Your task to perform on an android device: open app "Speedtest by Ookla" (install if not already installed) Image 0: 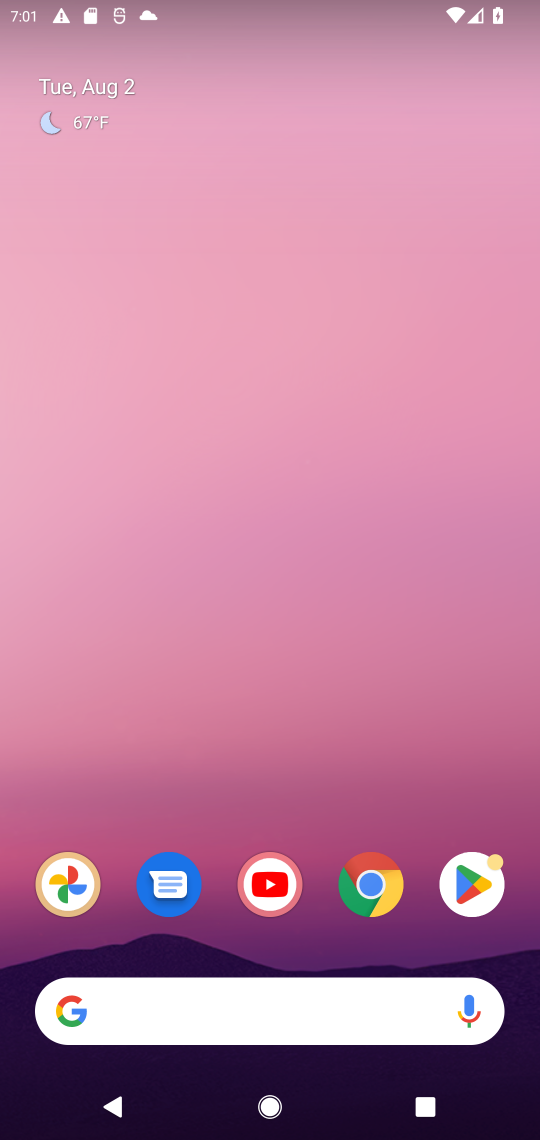
Step 0: press home button
Your task to perform on an android device: open app "Speedtest by Ookla" (install if not already installed) Image 1: 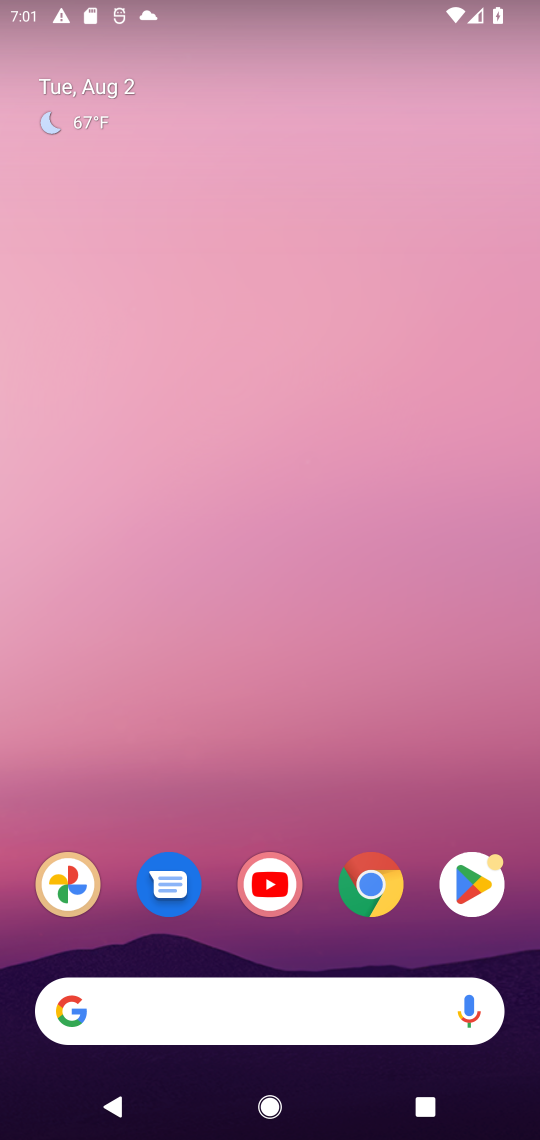
Step 1: click (475, 879)
Your task to perform on an android device: open app "Speedtest by Ookla" (install if not already installed) Image 2: 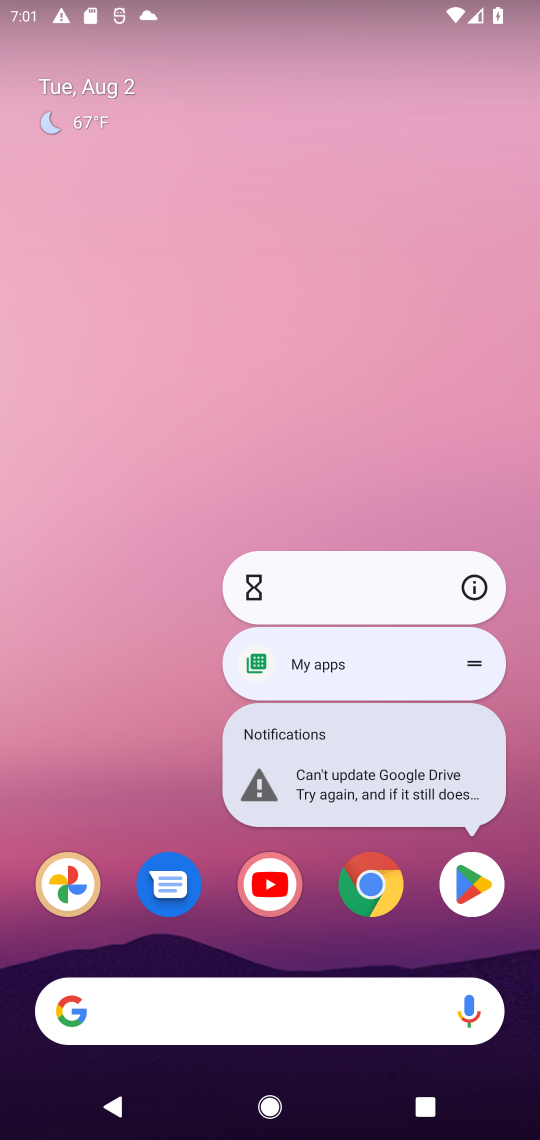
Step 2: click (470, 872)
Your task to perform on an android device: open app "Speedtest by Ookla" (install if not already installed) Image 3: 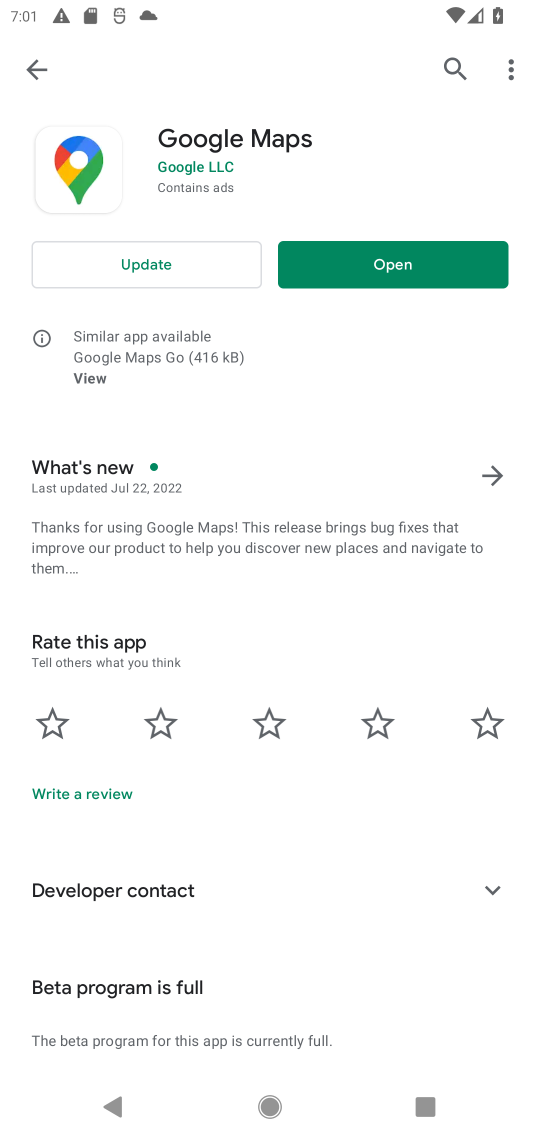
Step 3: click (435, 76)
Your task to perform on an android device: open app "Speedtest by Ookla" (install if not already installed) Image 4: 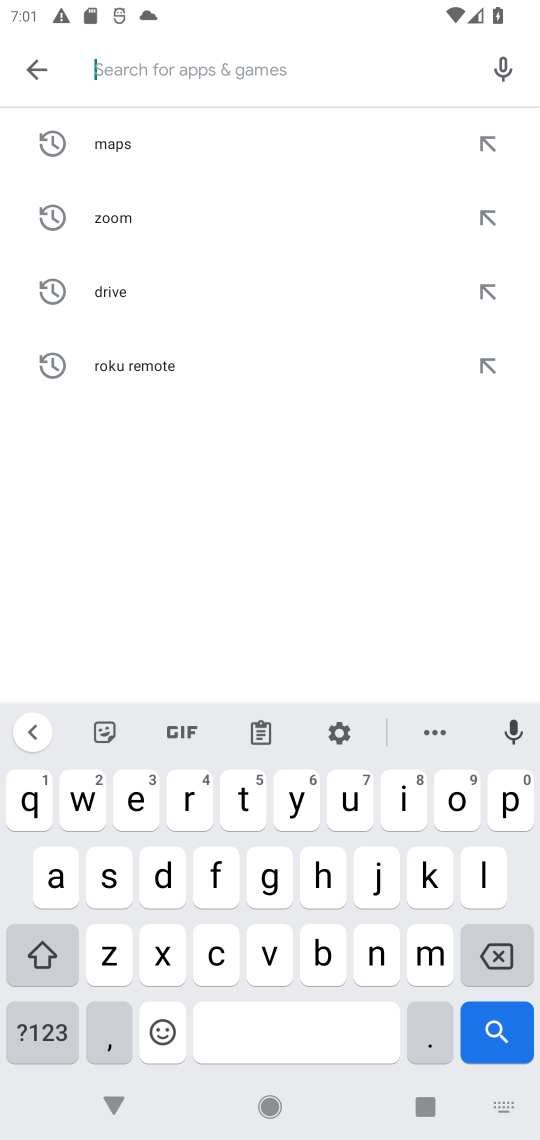
Step 4: click (98, 876)
Your task to perform on an android device: open app "Speedtest by Ookla" (install if not already installed) Image 5: 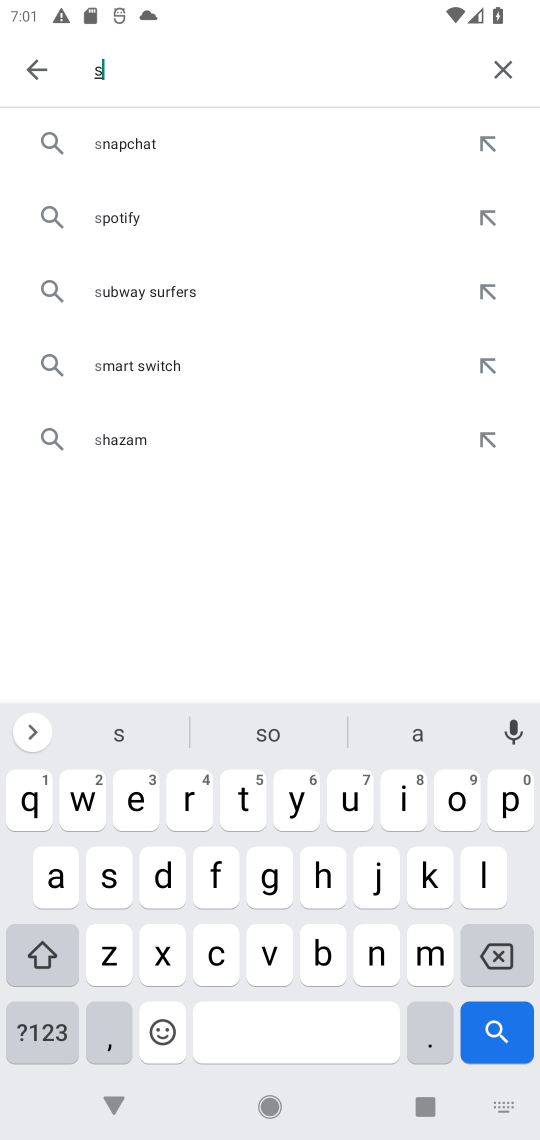
Step 5: click (507, 804)
Your task to perform on an android device: open app "Speedtest by Ookla" (install if not already installed) Image 6: 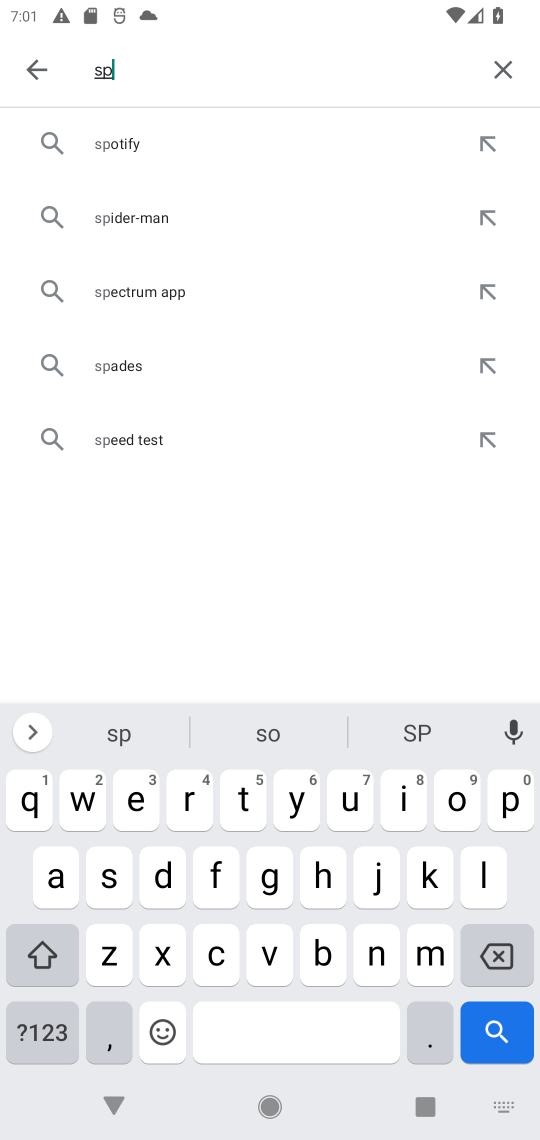
Step 6: click (138, 809)
Your task to perform on an android device: open app "Speedtest by Ookla" (install if not already installed) Image 7: 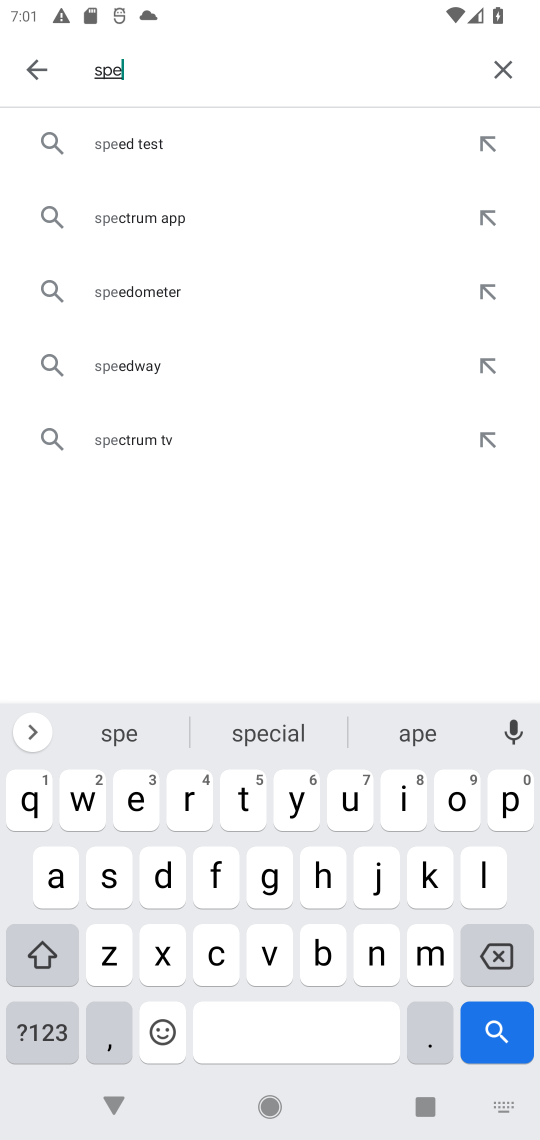
Step 7: click (138, 809)
Your task to perform on an android device: open app "Speedtest by Ookla" (install if not already installed) Image 8: 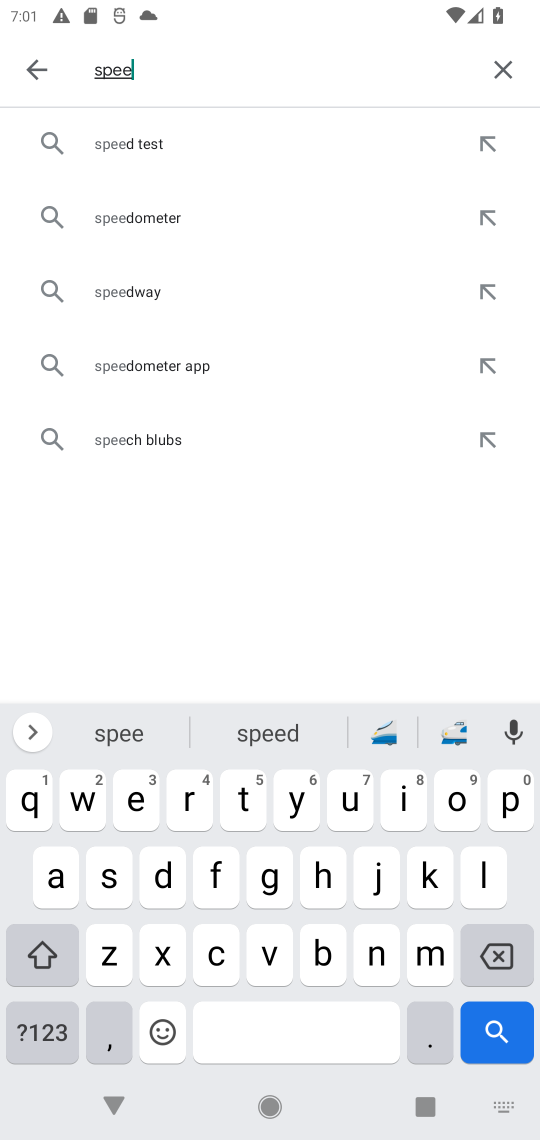
Step 8: click (177, 143)
Your task to perform on an android device: open app "Speedtest by Ookla" (install if not already installed) Image 9: 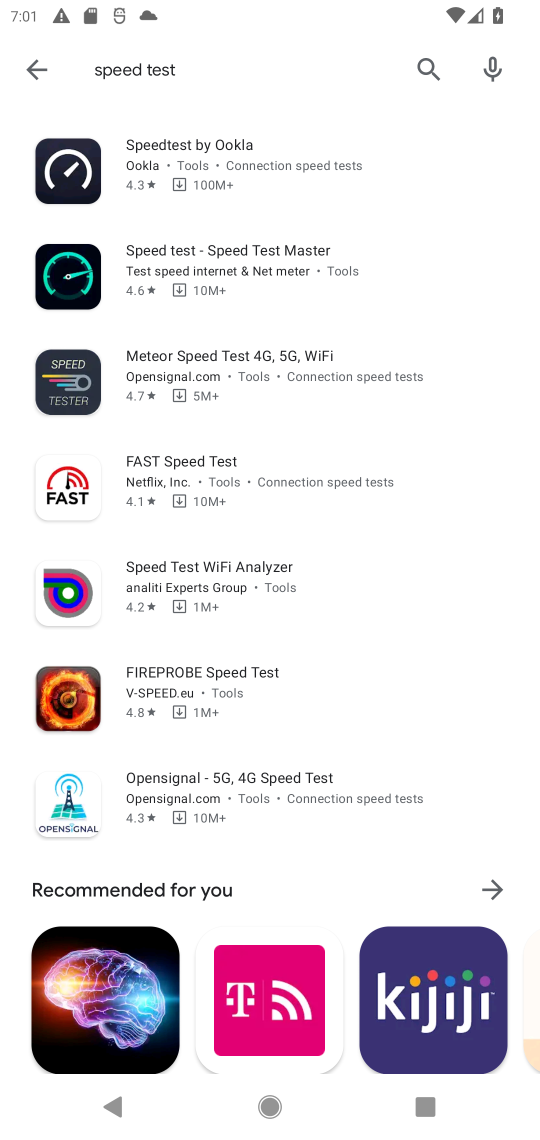
Step 9: click (240, 175)
Your task to perform on an android device: open app "Speedtest by Ookla" (install if not already installed) Image 10: 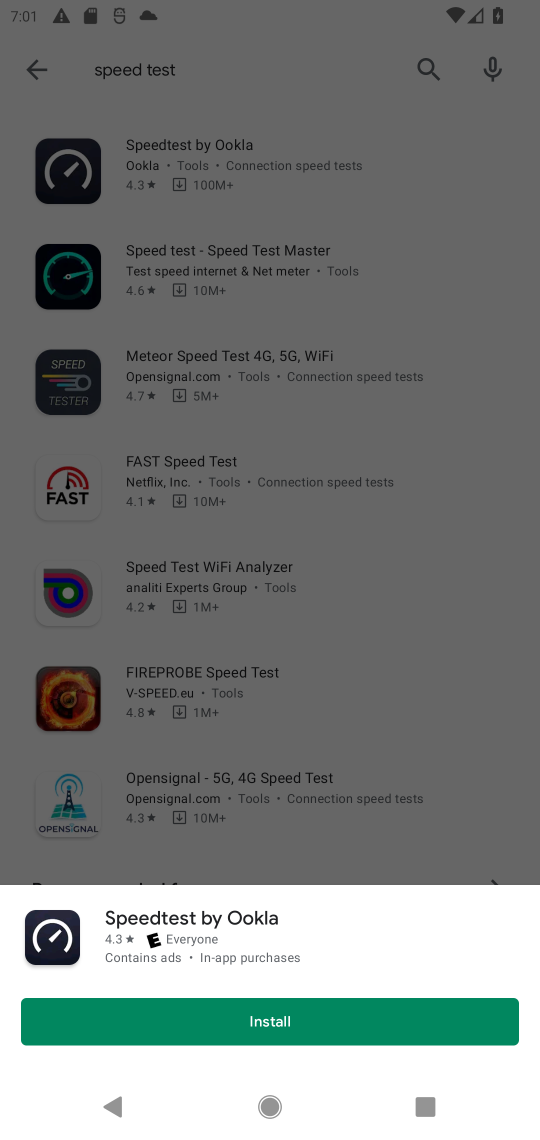
Step 10: click (220, 185)
Your task to perform on an android device: open app "Speedtest by Ookla" (install if not already installed) Image 11: 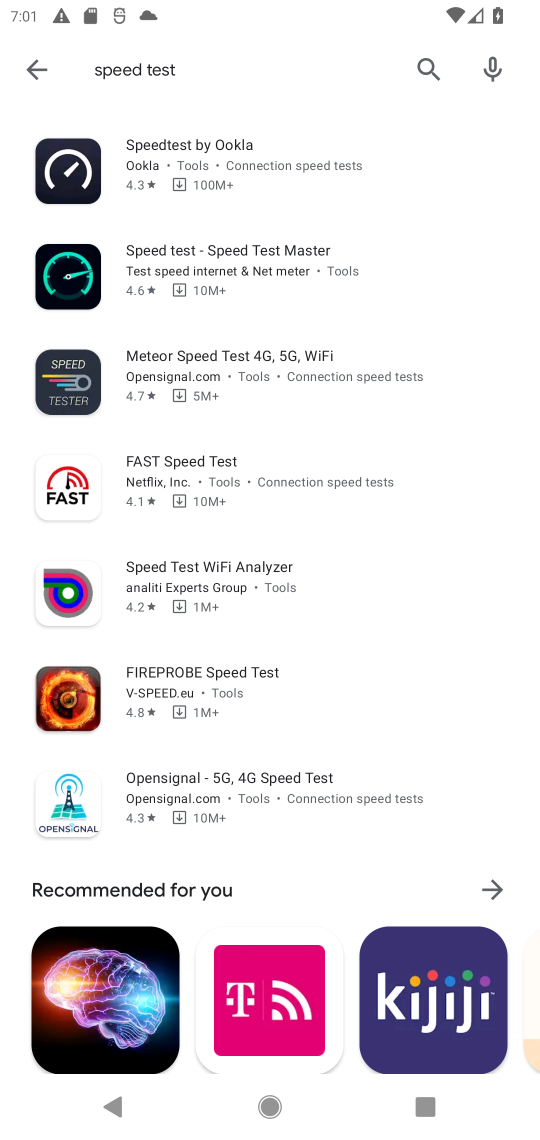
Step 11: click (166, 156)
Your task to perform on an android device: open app "Speedtest by Ookla" (install if not already installed) Image 12: 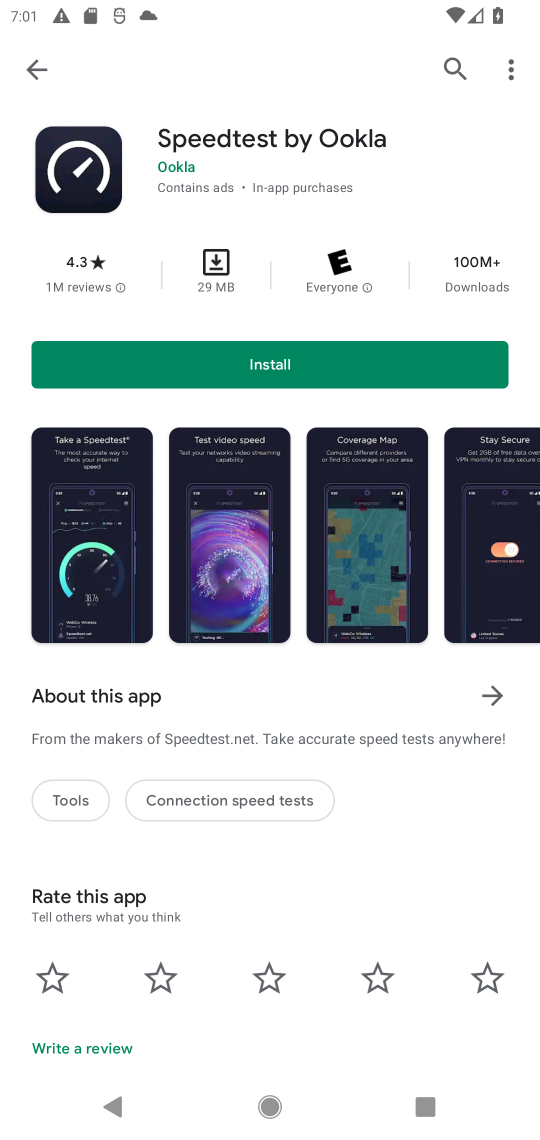
Step 12: click (211, 359)
Your task to perform on an android device: open app "Speedtest by Ookla" (install if not already installed) Image 13: 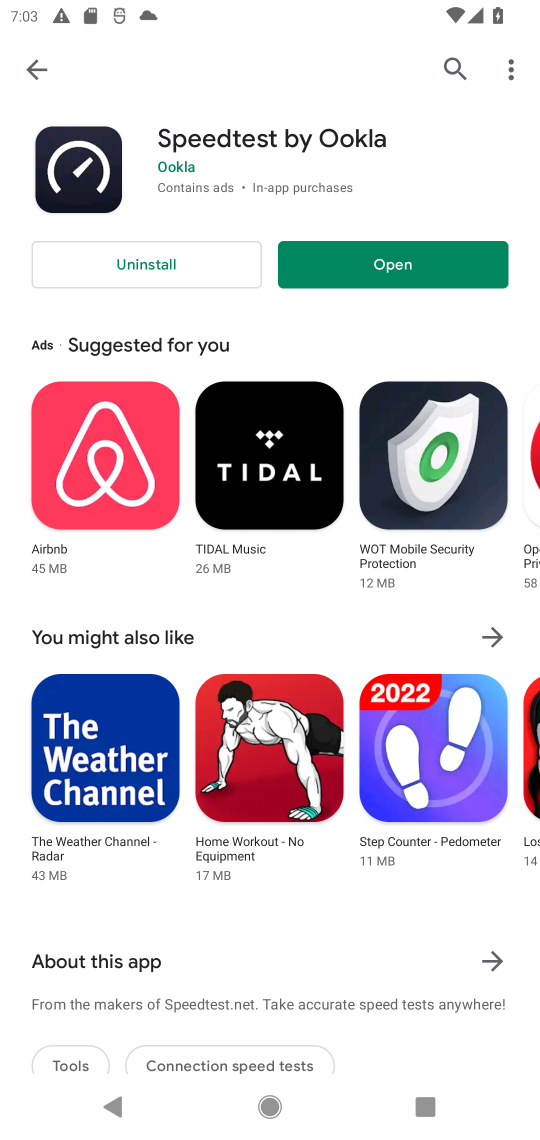
Step 13: click (352, 256)
Your task to perform on an android device: open app "Speedtest by Ookla" (install if not already installed) Image 14: 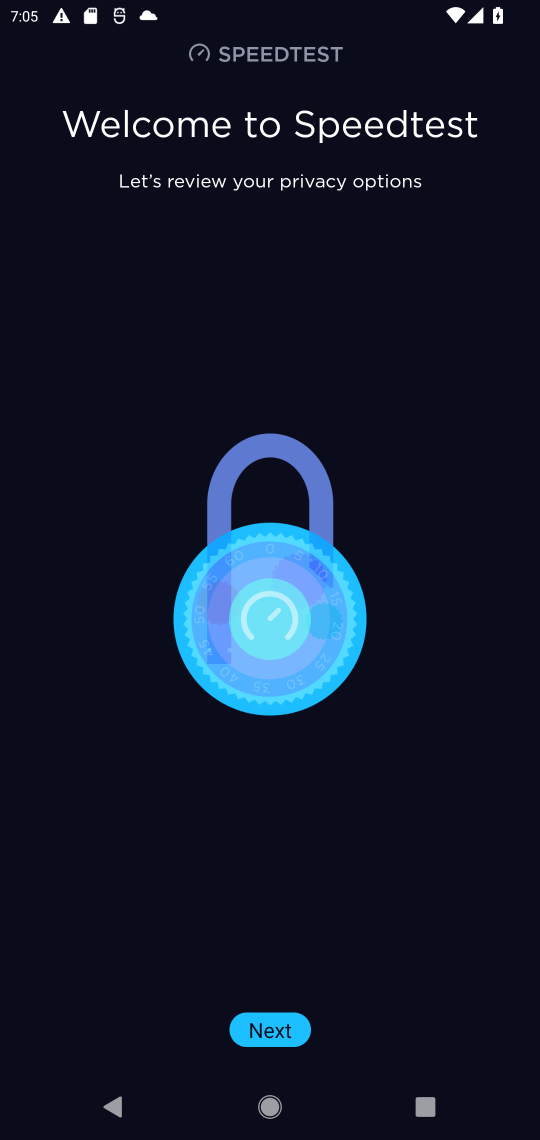
Step 14: task complete